Your task to perform on an android device: allow notifications from all sites in the chrome app Image 0: 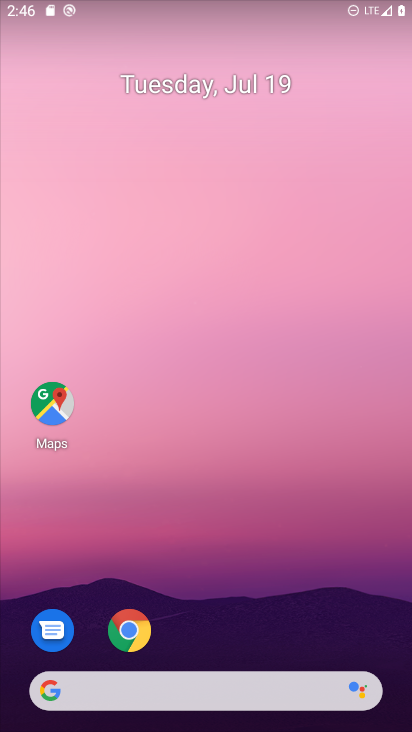
Step 0: click (127, 633)
Your task to perform on an android device: allow notifications from all sites in the chrome app Image 1: 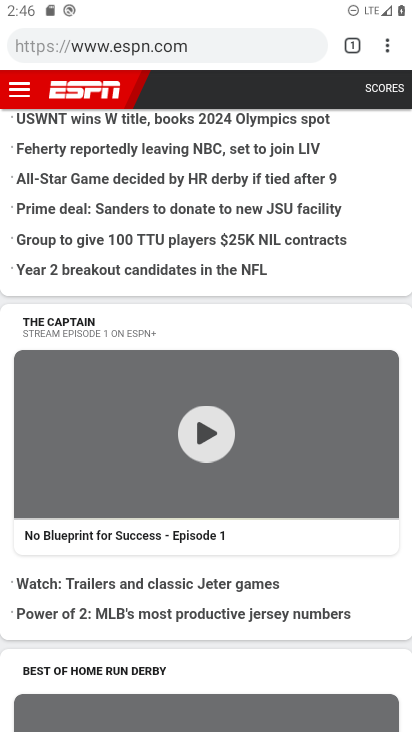
Step 1: click (388, 51)
Your task to perform on an android device: allow notifications from all sites in the chrome app Image 2: 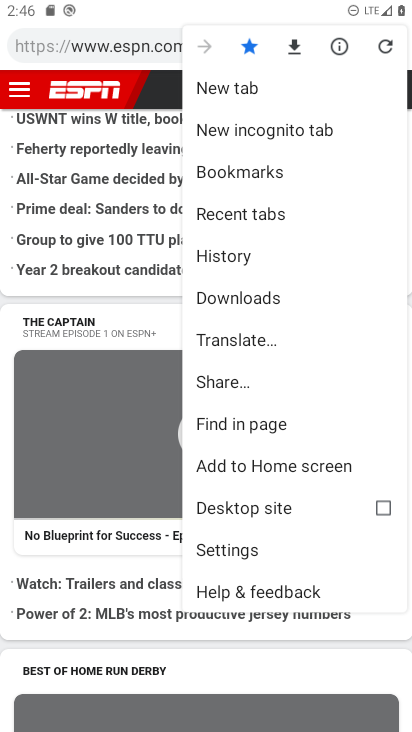
Step 2: click (231, 546)
Your task to perform on an android device: allow notifications from all sites in the chrome app Image 3: 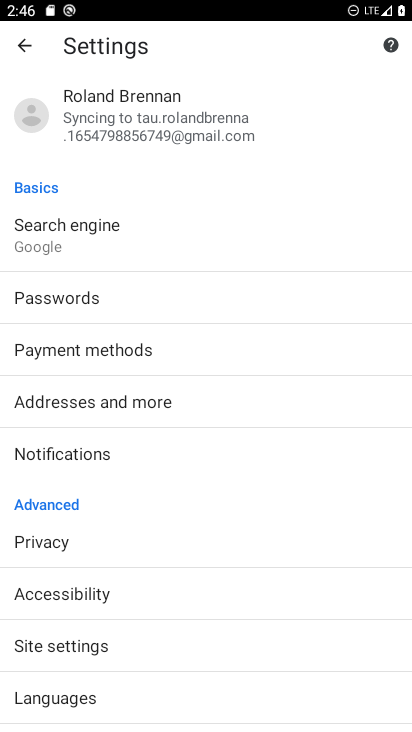
Step 3: drag from (160, 654) to (193, 310)
Your task to perform on an android device: allow notifications from all sites in the chrome app Image 4: 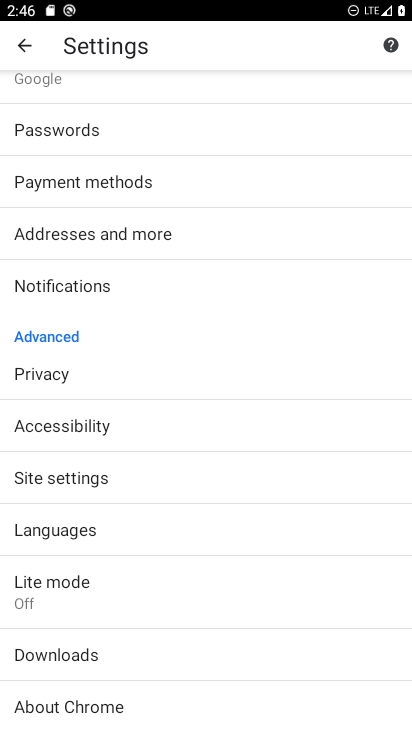
Step 4: click (78, 480)
Your task to perform on an android device: allow notifications from all sites in the chrome app Image 5: 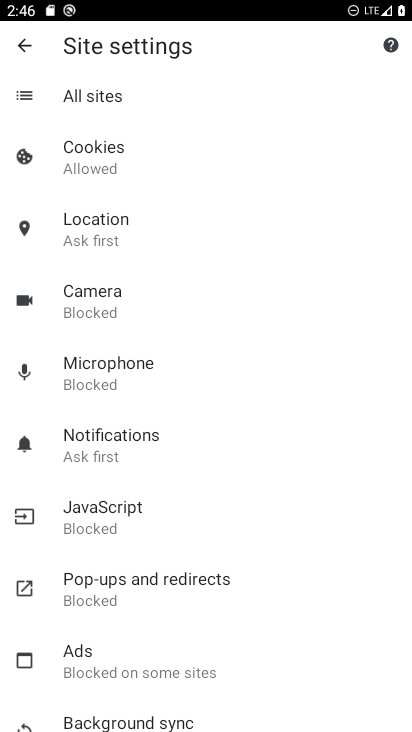
Step 5: click (88, 431)
Your task to perform on an android device: allow notifications from all sites in the chrome app Image 6: 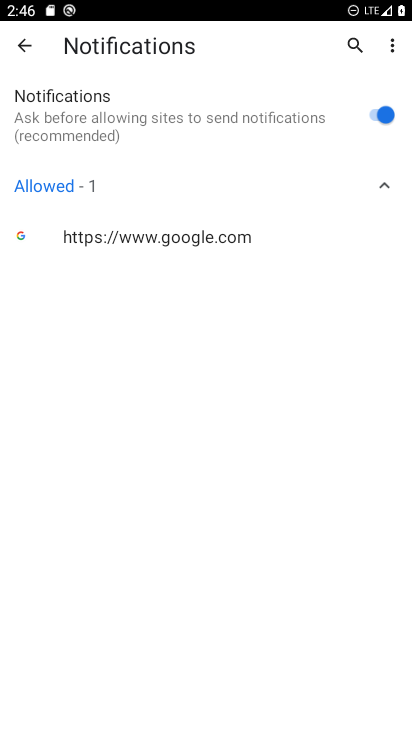
Step 6: task complete